Your task to perform on an android device: open a bookmark in the chrome app Image 0: 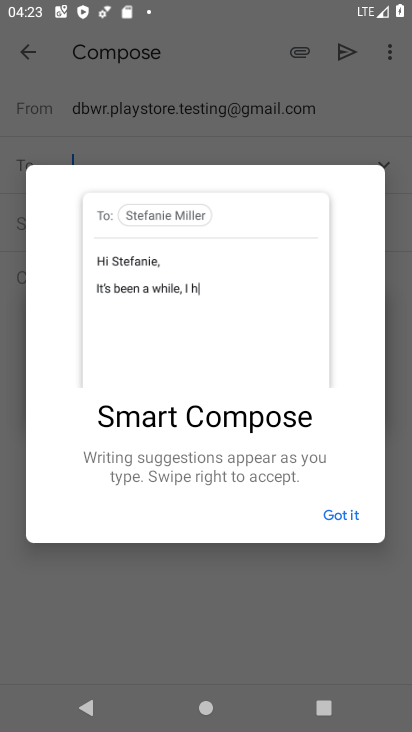
Step 0: press home button
Your task to perform on an android device: open a bookmark in the chrome app Image 1: 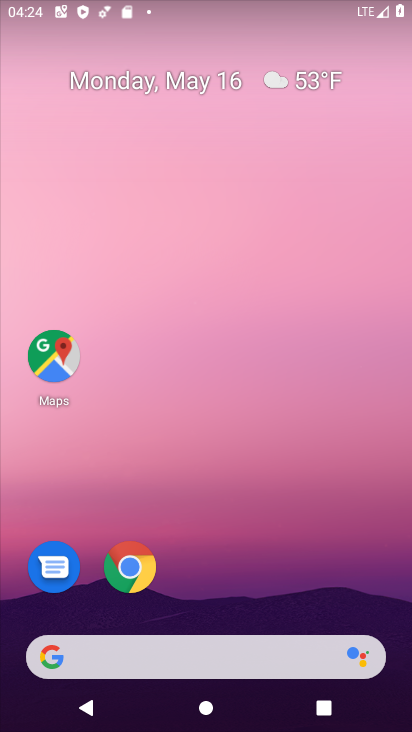
Step 1: drag from (336, 662) to (387, 176)
Your task to perform on an android device: open a bookmark in the chrome app Image 2: 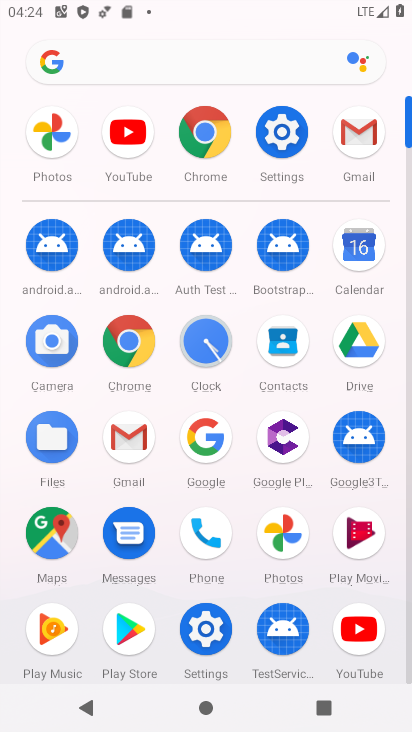
Step 2: click (136, 337)
Your task to perform on an android device: open a bookmark in the chrome app Image 3: 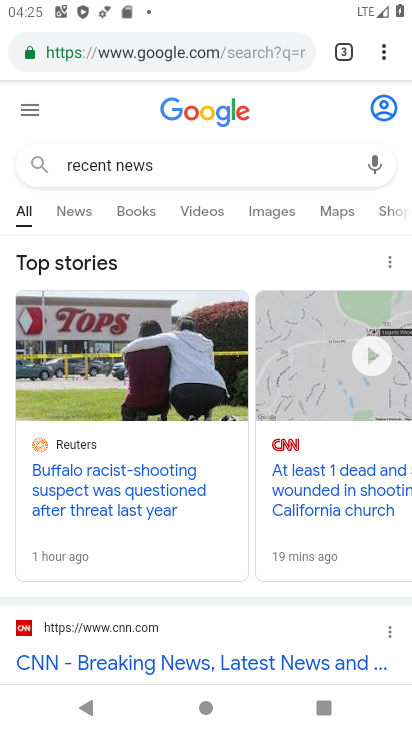
Step 3: click (385, 62)
Your task to perform on an android device: open a bookmark in the chrome app Image 4: 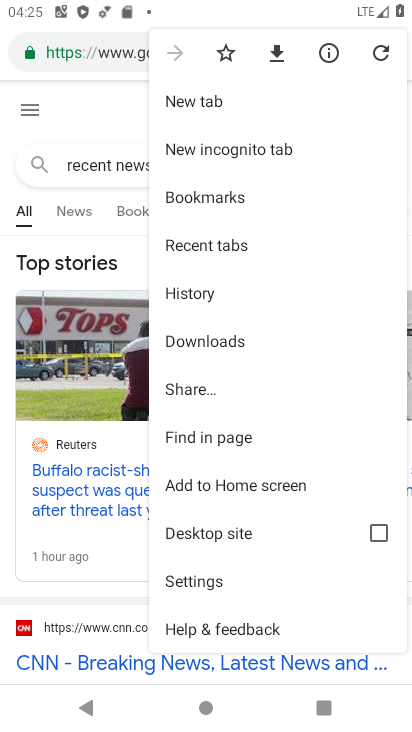
Step 4: click (278, 188)
Your task to perform on an android device: open a bookmark in the chrome app Image 5: 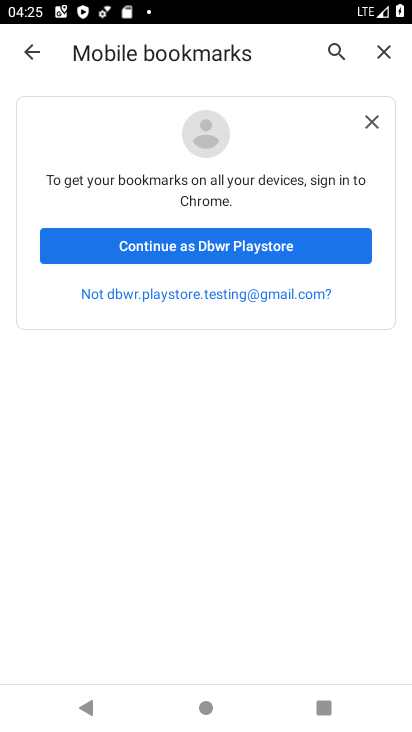
Step 5: task complete